Your task to perform on an android device: turn off improve location accuracy Image 0: 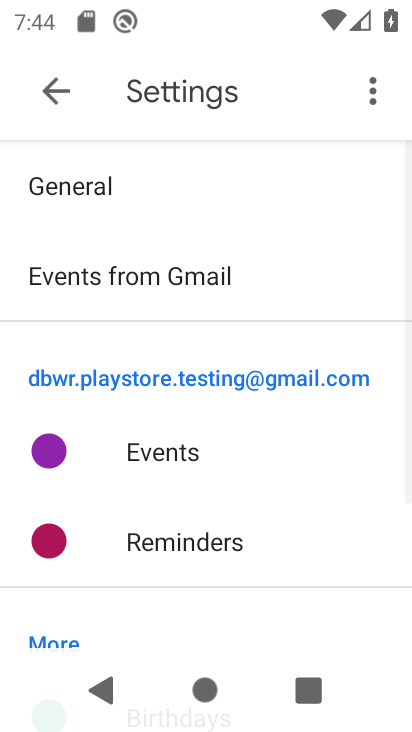
Step 0: press home button
Your task to perform on an android device: turn off improve location accuracy Image 1: 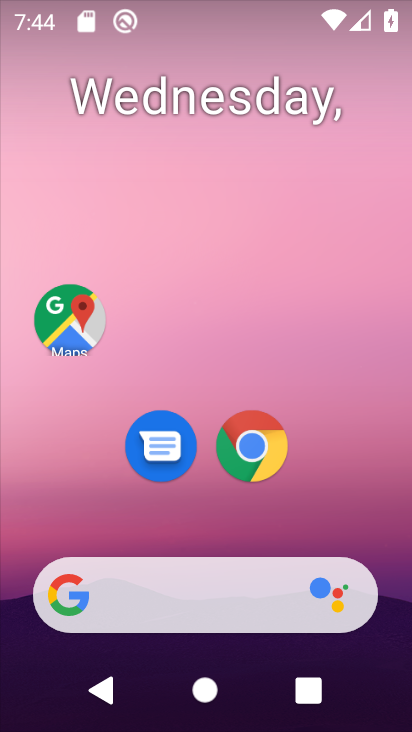
Step 1: drag from (215, 511) to (238, 22)
Your task to perform on an android device: turn off improve location accuracy Image 2: 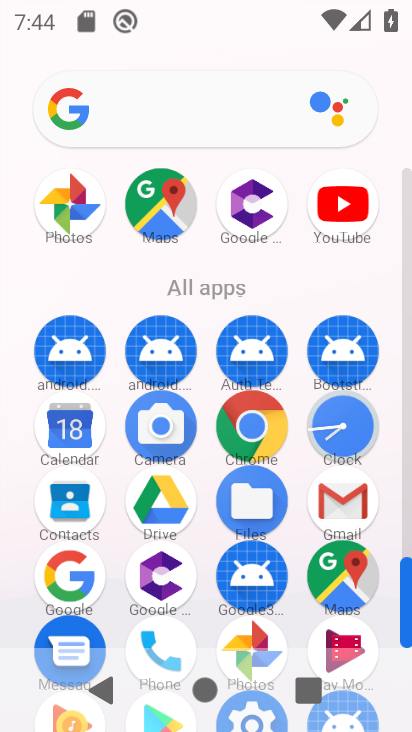
Step 2: drag from (196, 582) to (225, 14)
Your task to perform on an android device: turn off improve location accuracy Image 3: 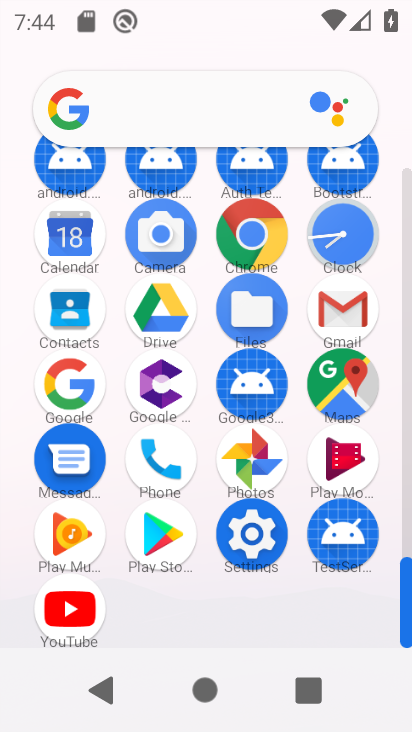
Step 3: click (253, 520)
Your task to perform on an android device: turn off improve location accuracy Image 4: 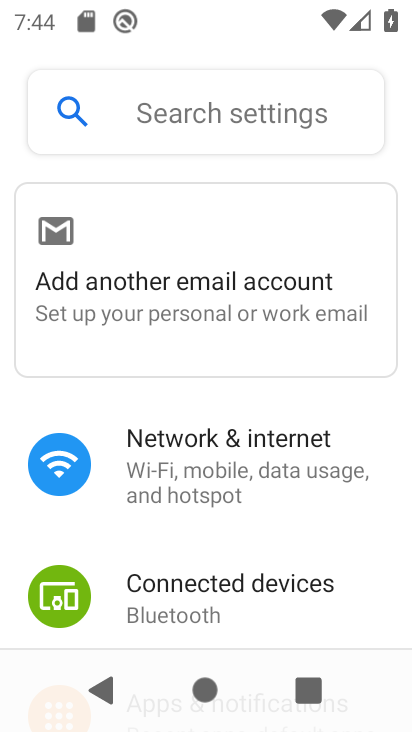
Step 4: drag from (202, 582) to (202, 125)
Your task to perform on an android device: turn off improve location accuracy Image 5: 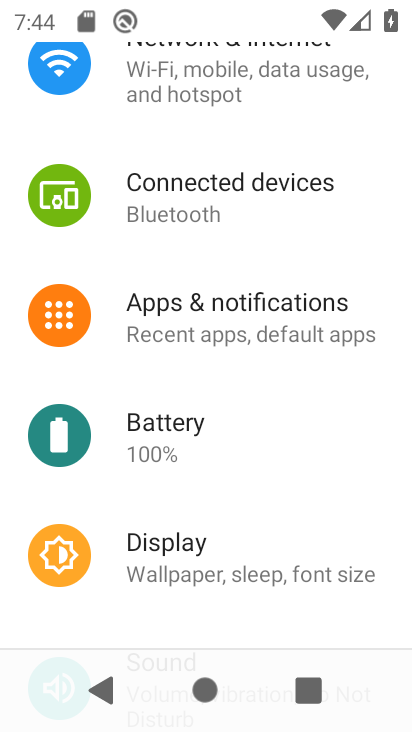
Step 5: drag from (201, 580) to (194, 44)
Your task to perform on an android device: turn off improve location accuracy Image 6: 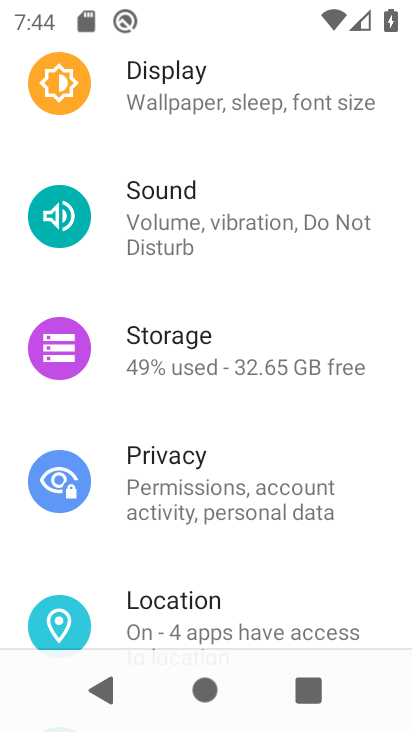
Step 6: click (229, 605)
Your task to perform on an android device: turn off improve location accuracy Image 7: 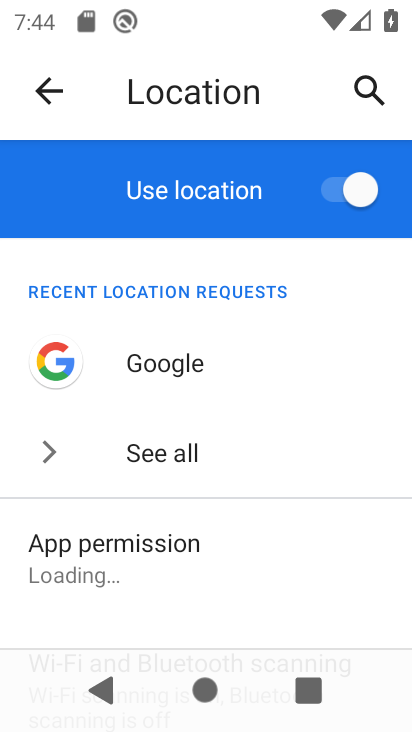
Step 7: drag from (253, 620) to (261, 122)
Your task to perform on an android device: turn off improve location accuracy Image 8: 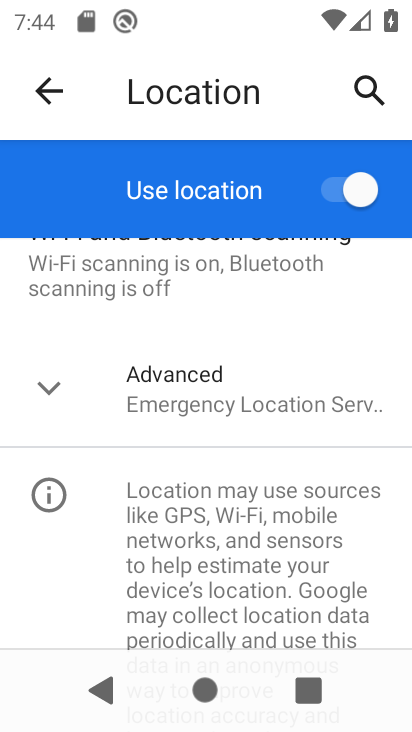
Step 8: click (87, 382)
Your task to perform on an android device: turn off improve location accuracy Image 9: 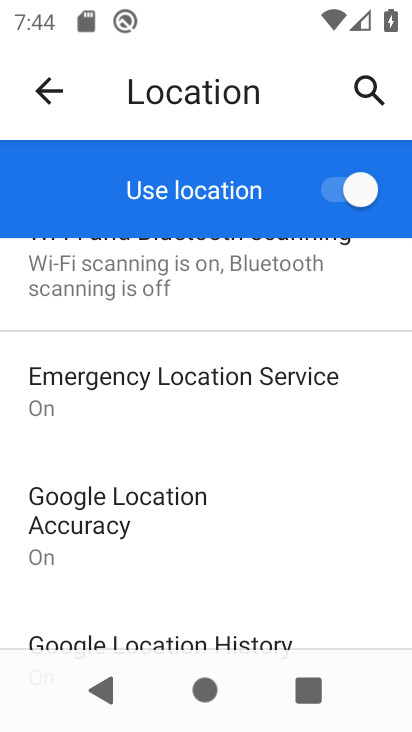
Step 9: click (192, 526)
Your task to perform on an android device: turn off improve location accuracy Image 10: 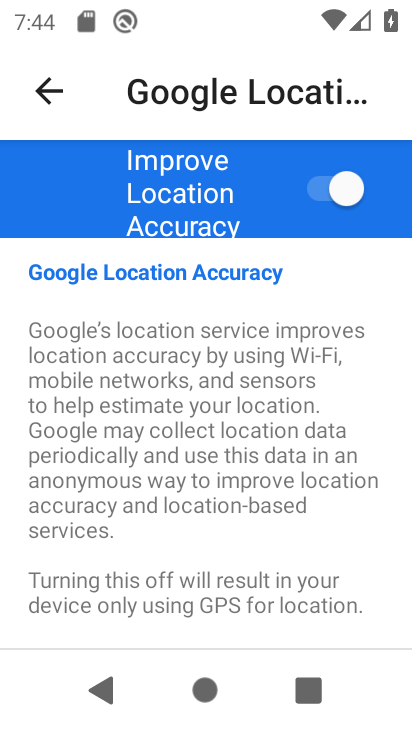
Step 10: click (326, 176)
Your task to perform on an android device: turn off improve location accuracy Image 11: 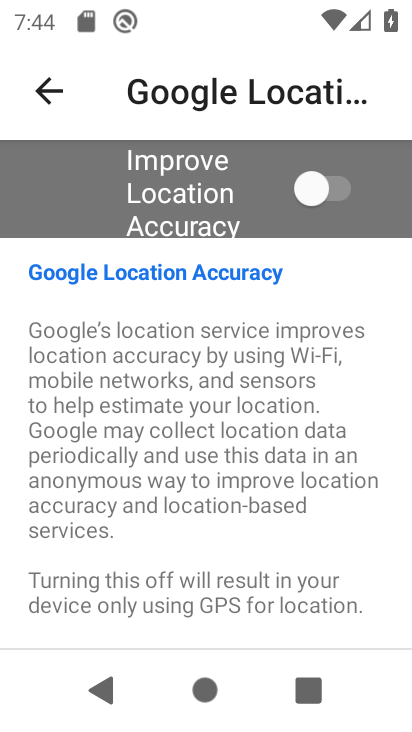
Step 11: task complete